Your task to perform on an android device: empty trash in google photos Image 0: 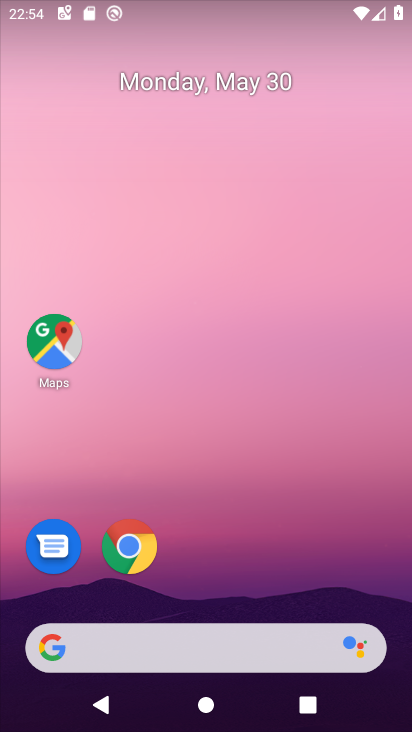
Step 0: drag from (201, 550) to (261, 15)
Your task to perform on an android device: empty trash in google photos Image 1: 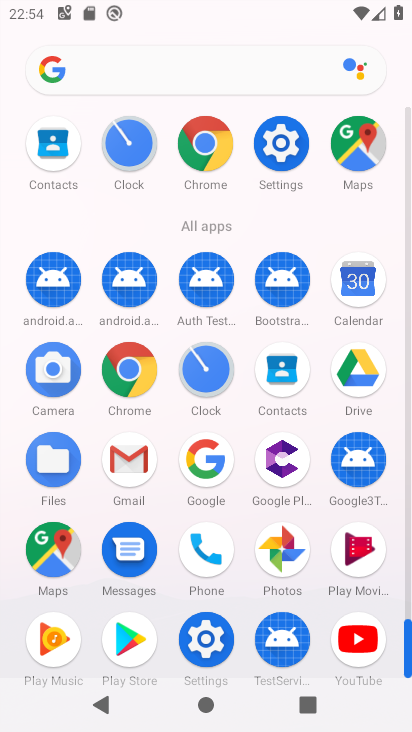
Step 1: click (291, 546)
Your task to perform on an android device: empty trash in google photos Image 2: 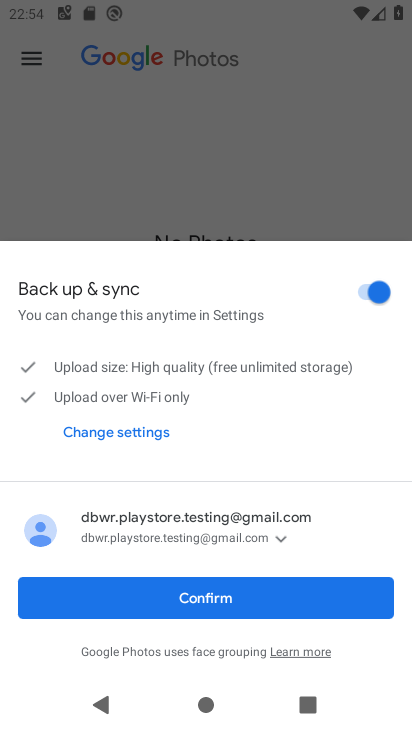
Step 2: click (217, 599)
Your task to perform on an android device: empty trash in google photos Image 3: 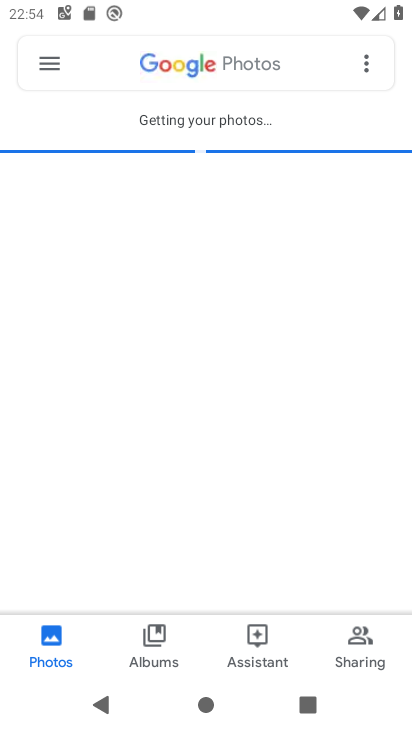
Step 3: click (21, 53)
Your task to perform on an android device: empty trash in google photos Image 4: 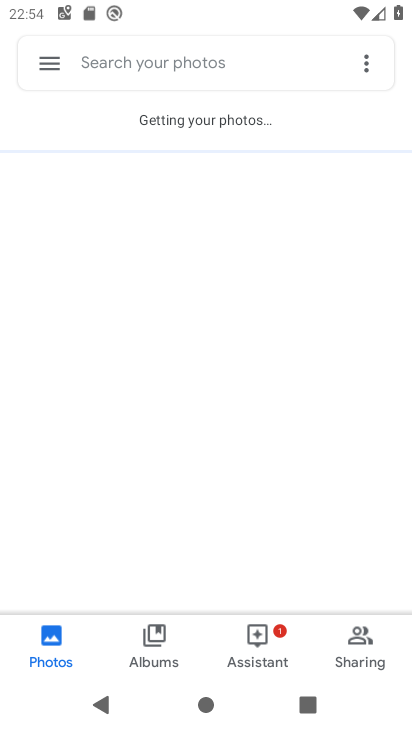
Step 4: click (51, 65)
Your task to perform on an android device: empty trash in google photos Image 5: 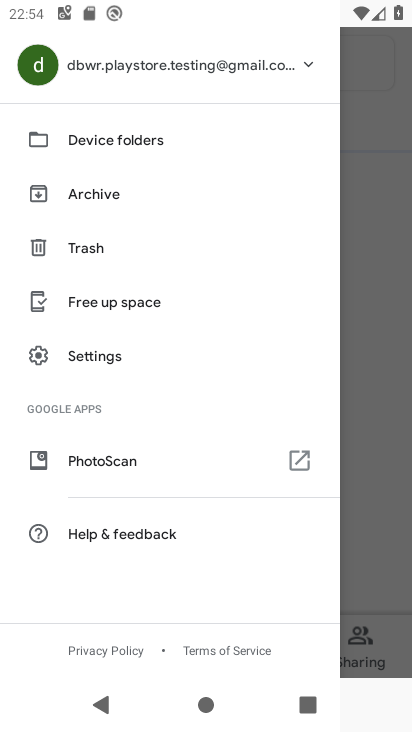
Step 5: click (85, 246)
Your task to perform on an android device: empty trash in google photos Image 6: 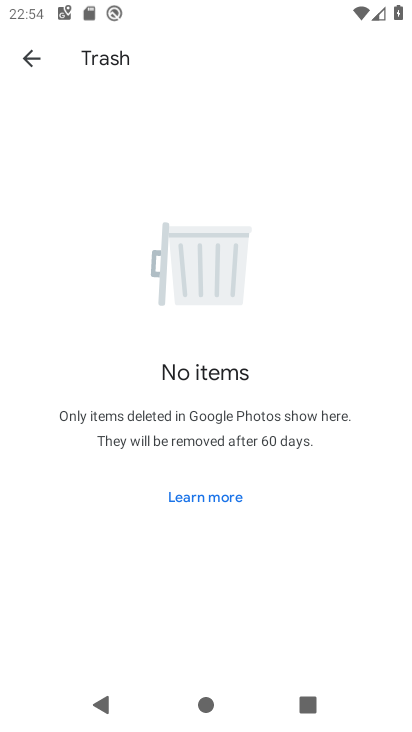
Step 6: task complete